Your task to perform on an android device: Go to CNN.com Image 0: 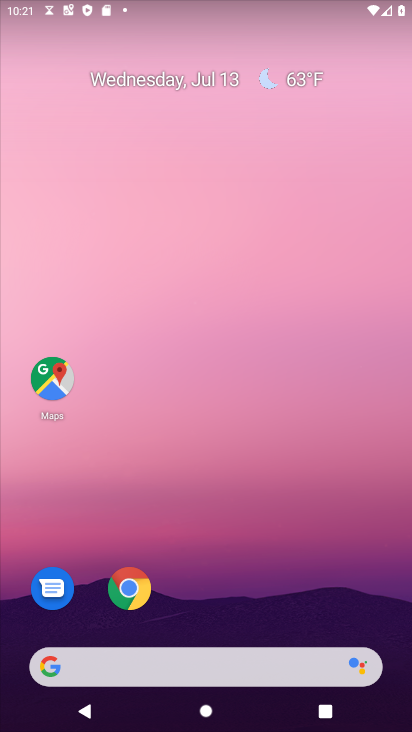
Step 0: click (202, 667)
Your task to perform on an android device: Go to CNN.com Image 1: 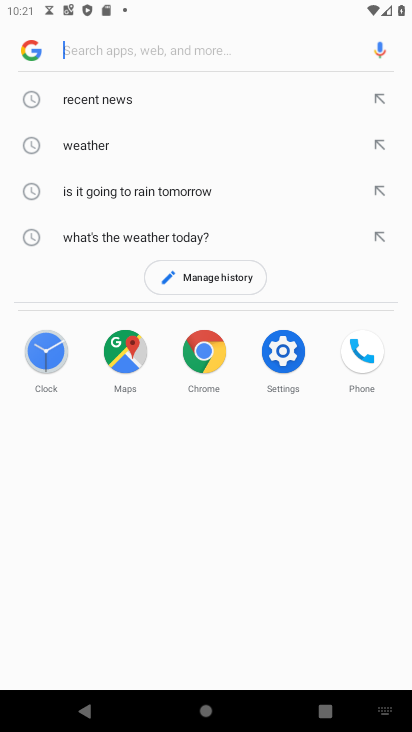
Step 1: click (121, 53)
Your task to perform on an android device: Go to CNN.com Image 2: 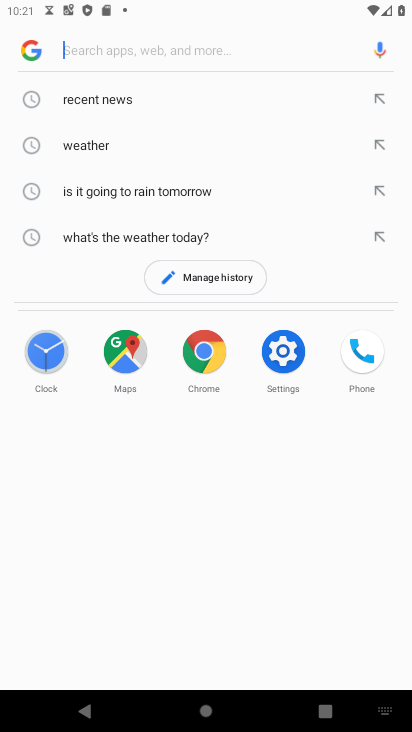
Step 2: type "CNN.com"
Your task to perform on an android device: Go to CNN.com Image 3: 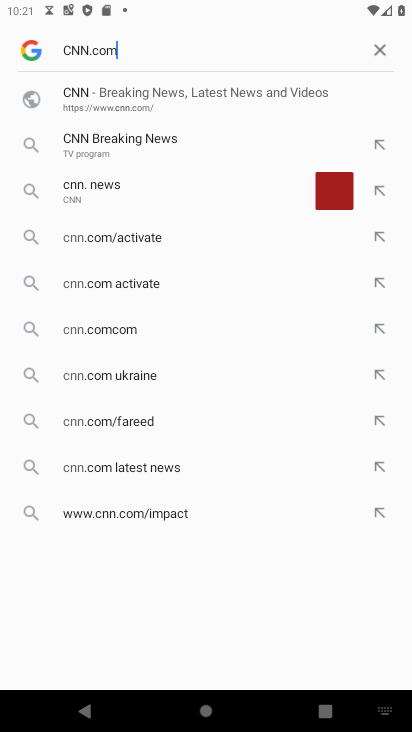
Step 3: type ""
Your task to perform on an android device: Go to CNN.com Image 4: 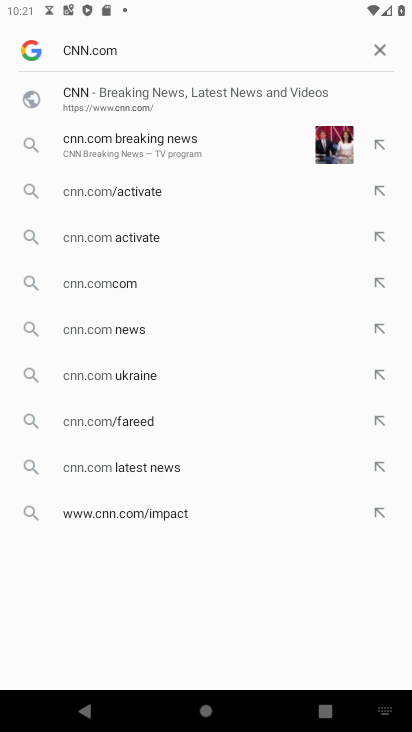
Step 4: click (87, 98)
Your task to perform on an android device: Go to CNN.com Image 5: 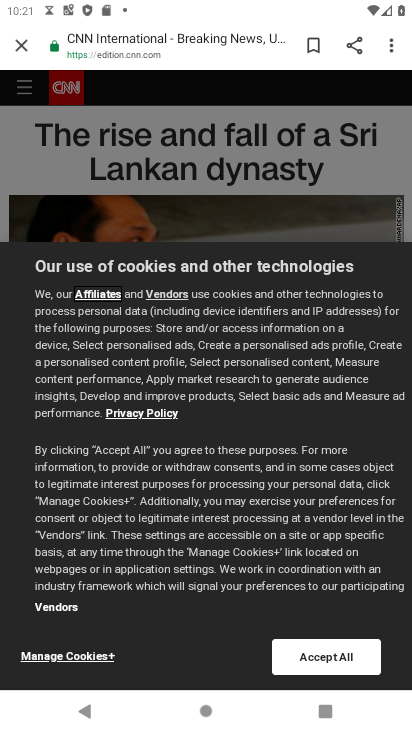
Step 5: task complete